Your task to perform on an android device: add a contact in the contacts app Image 0: 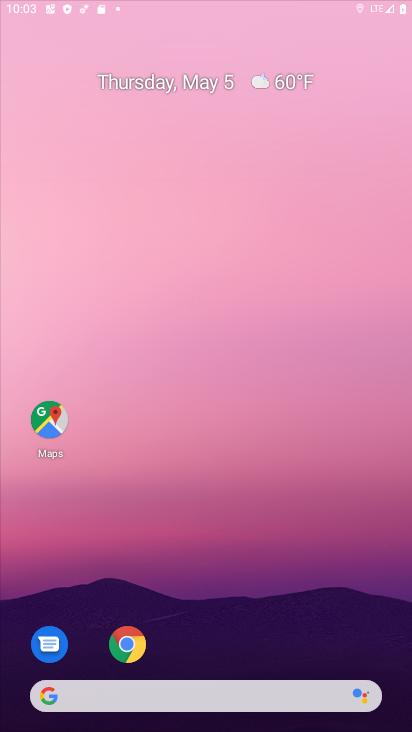
Step 0: drag from (241, 518) to (329, 59)
Your task to perform on an android device: add a contact in the contacts app Image 1: 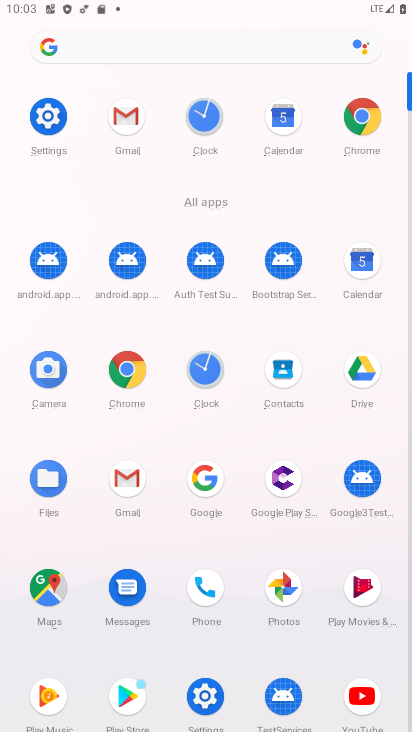
Step 1: click (294, 377)
Your task to perform on an android device: add a contact in the contacts app Image 2: 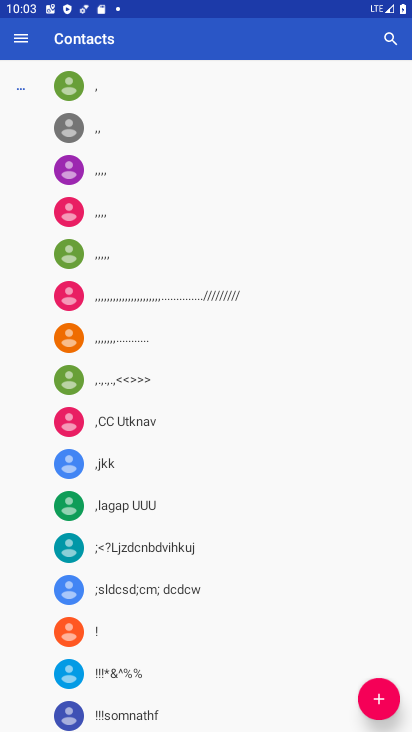
Step 2: click (382, 708)
Your task to perform on an android device: add a contact in the contacts app Image 3: 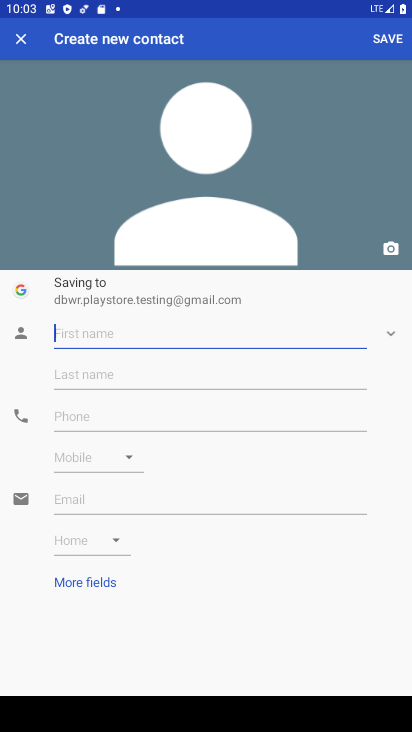
Step 3: type "sapna"
Your task to perform on an android device: add a contact in the contacts app Image 4: 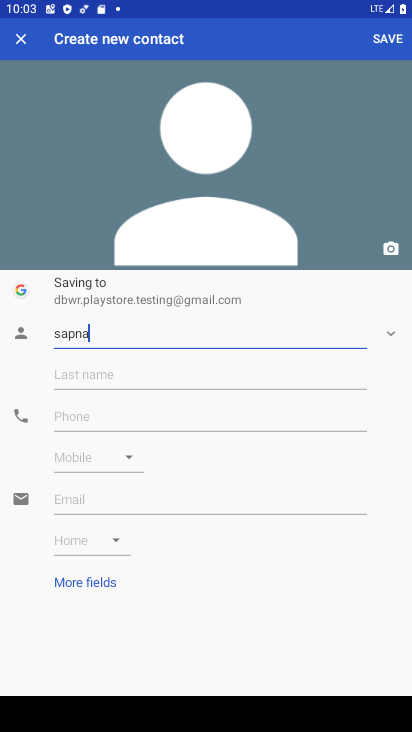
Step 4: click (101, 417)
Your task to perform on an android device: add a contact in the contacts app Image 5: 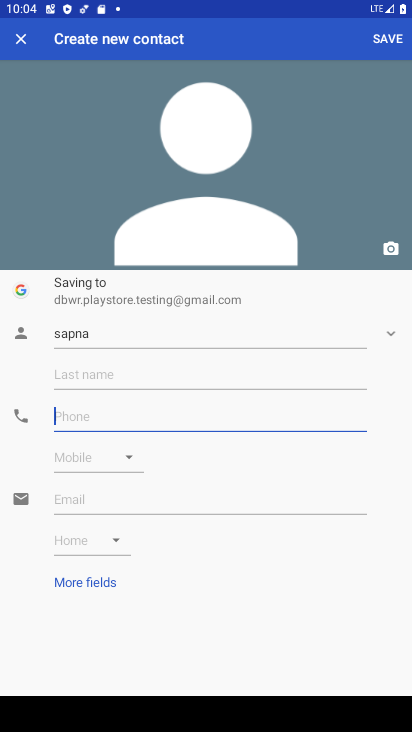
Step 5: type "2345454345345"
Your task to perform on an android device: add a contact in the contacts app Image 6: 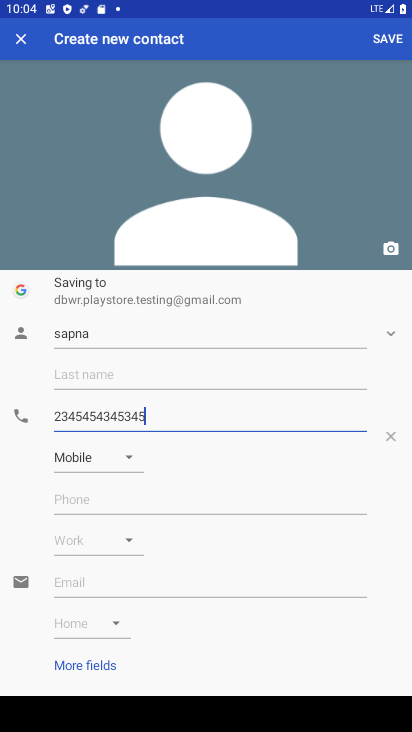
Step 6: click (385, 41)
Your task to perform on an android device: add a contact in the contacts app Image 7: 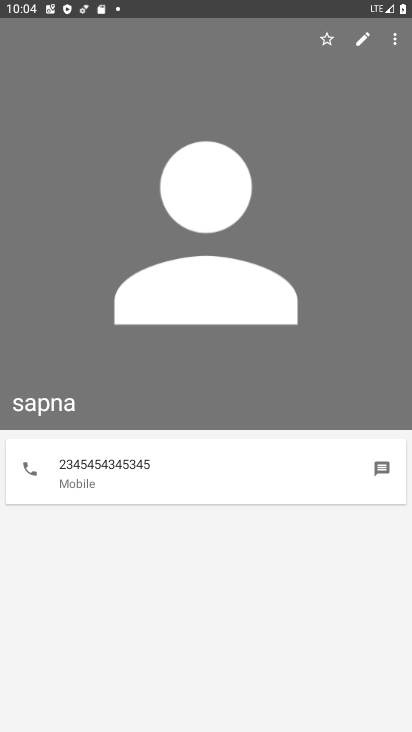
Step 7: task complete